Your task to perform on an android device: Open the calendar and show me this week's events? Image 0: 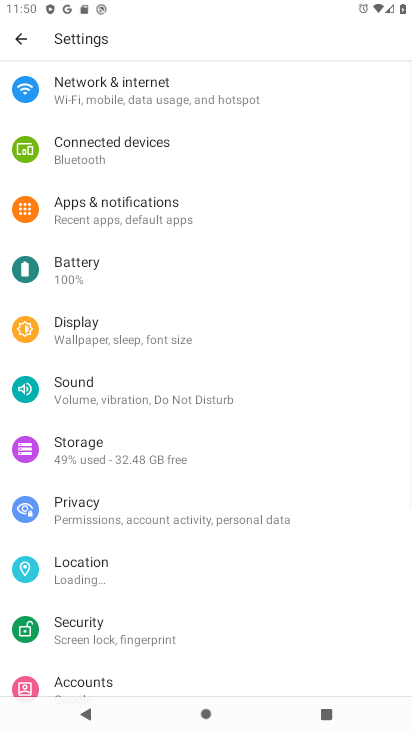
Step 0: press home button
Your task to perform on an android device: Open the calendar and show me this week's events? Image 1: 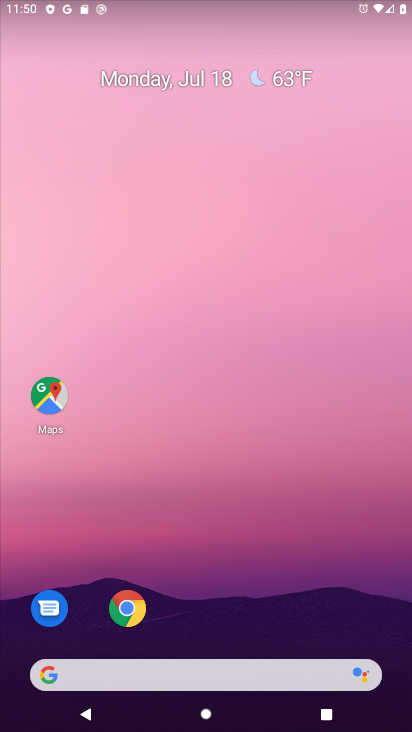
Step 1: drag from (220, 615) to (229, 198)
Your task to perform on an android device: Open the calendar and show me this week's events? Image 2: 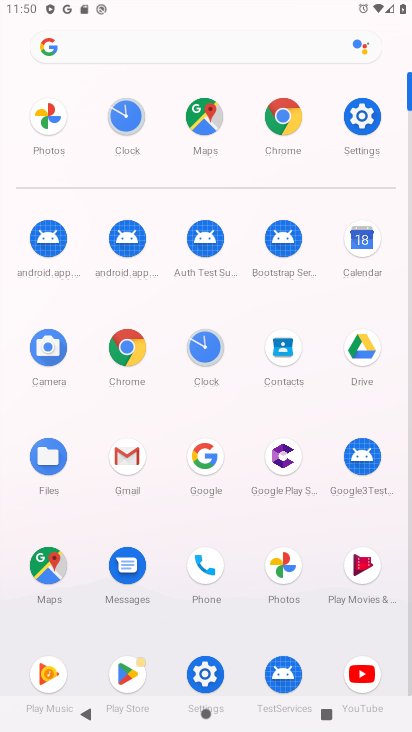
Step 2: click (365, 229)
Your task to perform on an android device: Open the calendar and show me this week's events? Image 3: 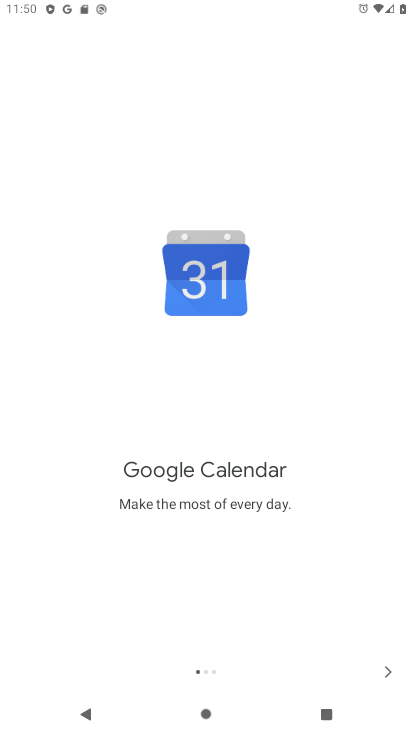
Step 3: click (388, 676)
Your task to perform on an android device: Open the calendar and show me this week's events? Image 4: 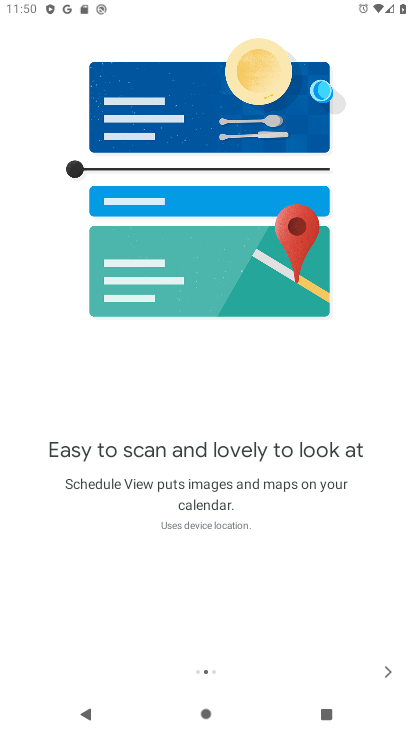
Step 4: click (388, 676)
Your task to perform on an android device: Open the calendar and show me this week's events? Image 5: 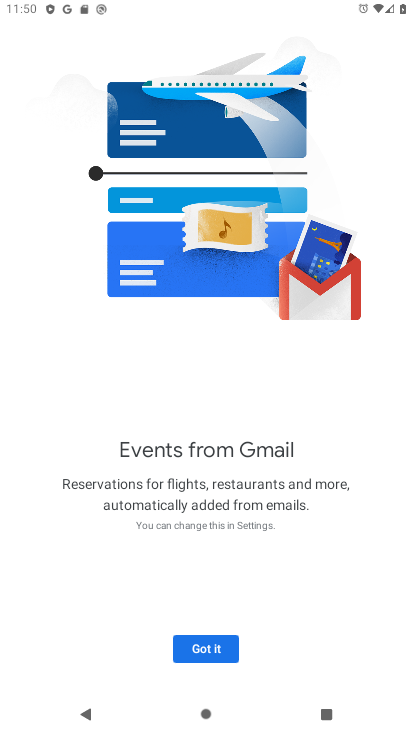
Step 5: click (203, 650)
Your task to perform on an android device: Open the calendar and show me this week's events? Image 6: 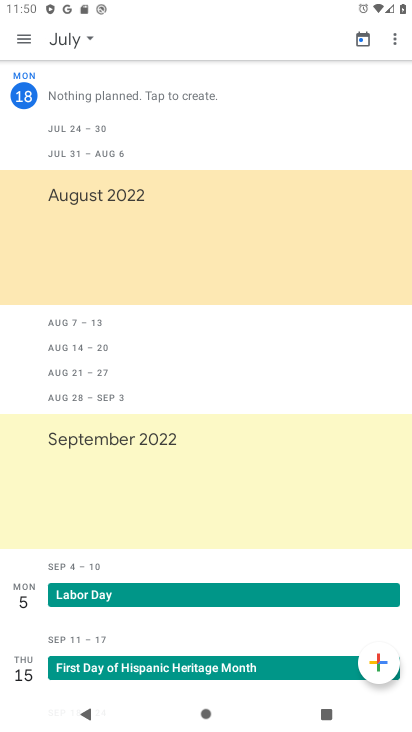
Step 6: click (92, 34)
Your task to perform on an android device: Open the calendar and show me this week's events? Image 7: 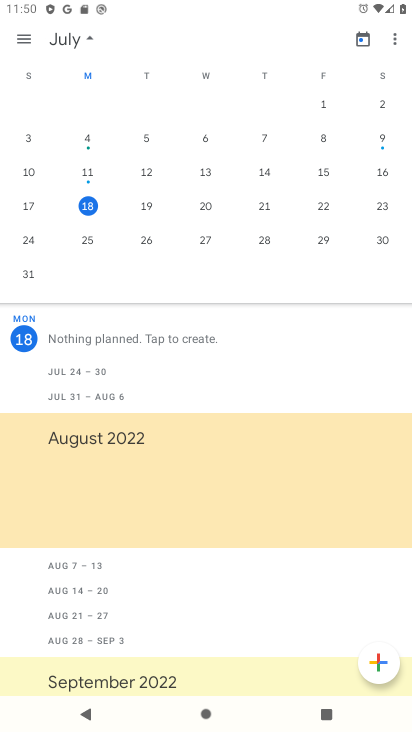
Step 7: click (87, 208)
Your task to perform on an android device: Open the calendar and show me this week's events? Image 8: 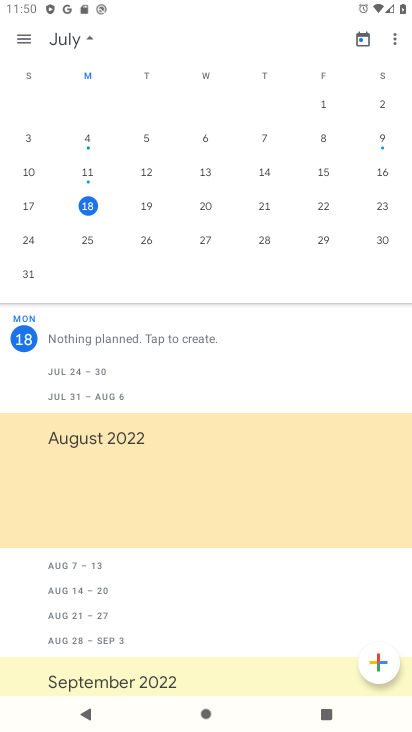
Step 8: click (142, 208)
Your task to perform on an android device: Open the calendar and show me this week's events? Image 9: 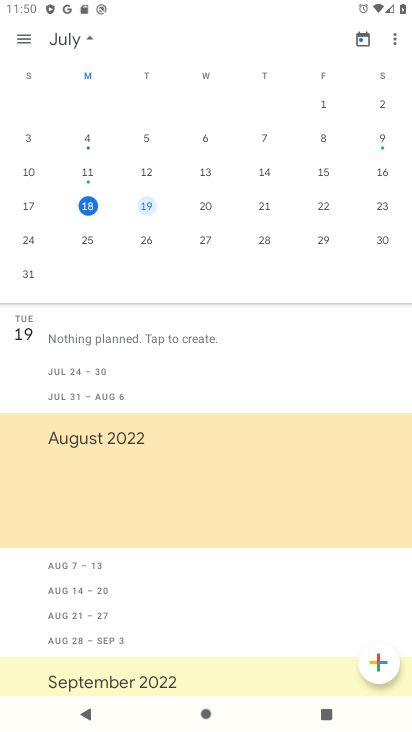
Step 9: click (211, 208)
Your task to perform on an android device: Open the calendar and show me this week's events? Image 10: 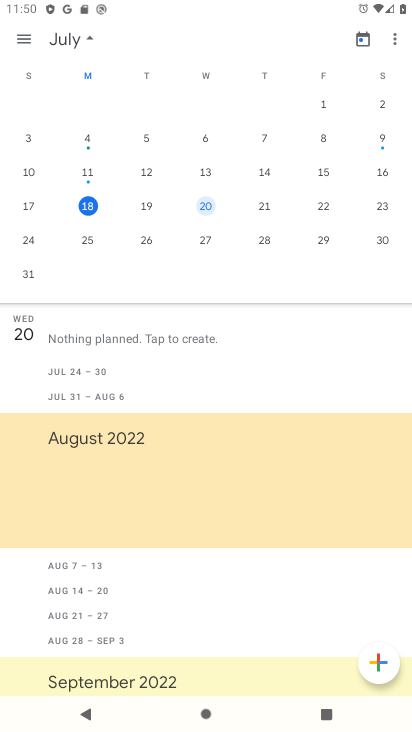
Step 10: click (286, 207)
Your task to perform on an android device: Open the calendar and show me this week's events? Image 11: 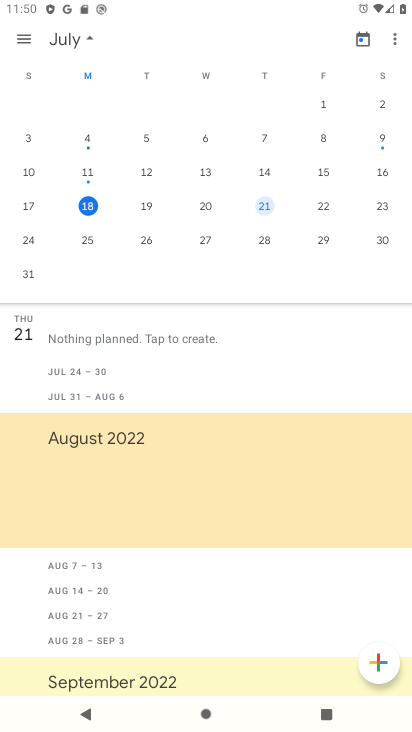
Step 11: click (326, 207)
Your task to perform on an android device: Open the calendar and show me this week's events? Image 12: 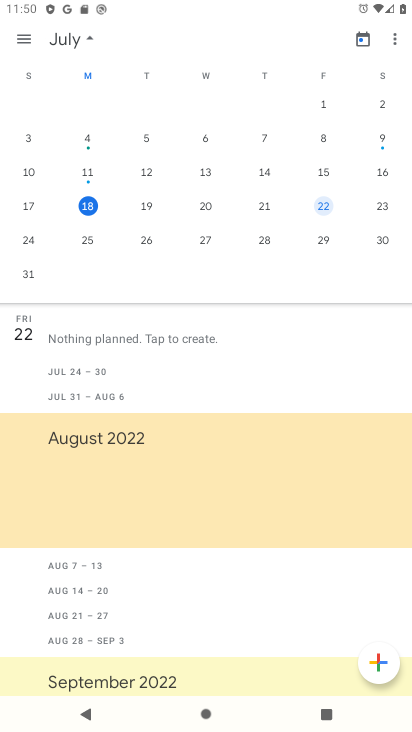
Step 12: click (392, 207)
Your task to perform on an android device: Open the calendar and show me this week's events? Image 13: 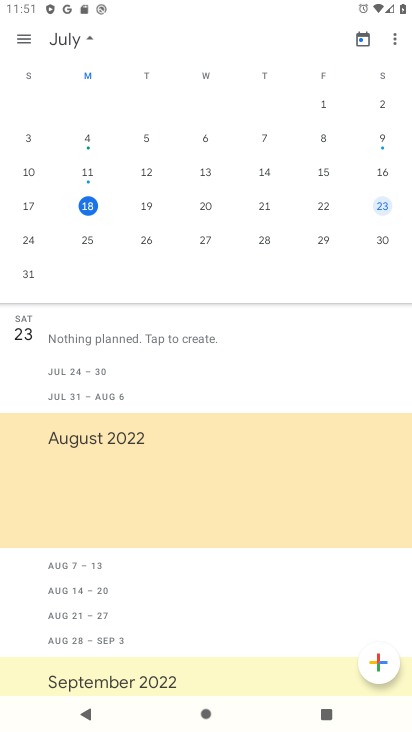
Step 13: task complete